Your task to perform on an android device: allow notifications from all sites in the chrome app Image 0: 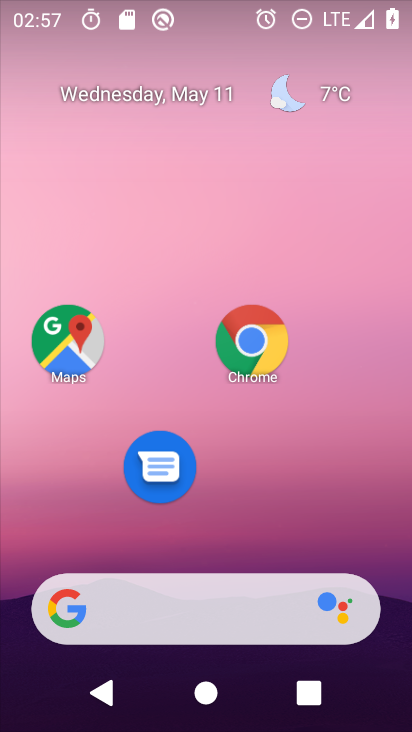
Step 0: drag from (180, 616) to (263, 212)
Your task to perform on an android device: allow notifications from all sites in the chrome app Image 1: 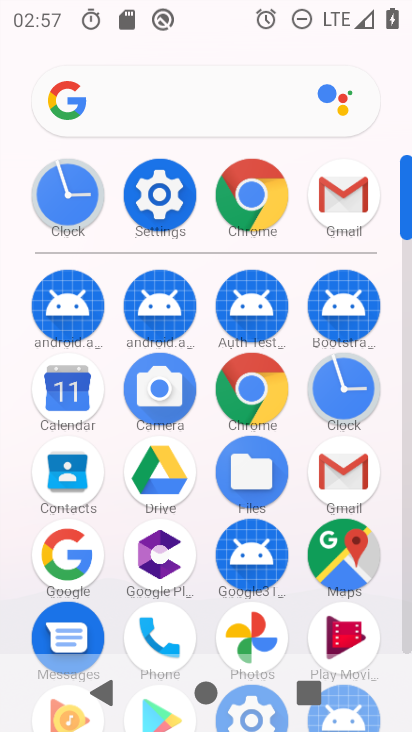
Step 1: click (255, 219)
Your task to perform on an android device: allow notifications from all sites in the chrome app Image 2: 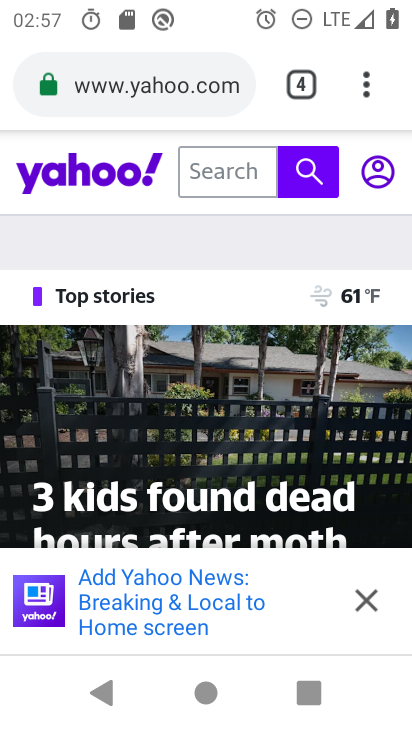
Step 2: drag from (366, 90) to (212, 517)
Your task to perform on an android device: allow notifications from all sites in the chrome app Image 3: 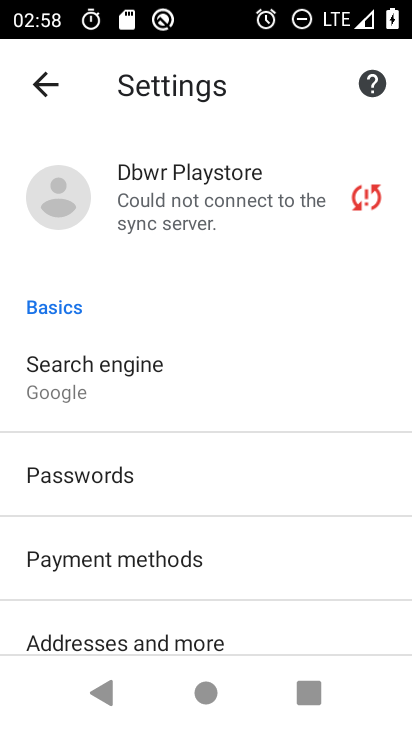
Step 3: drag from (240, 592) to (384, 180)
Your task to perform on an android device: allow notifications from all sites in the chrome app Image 4: 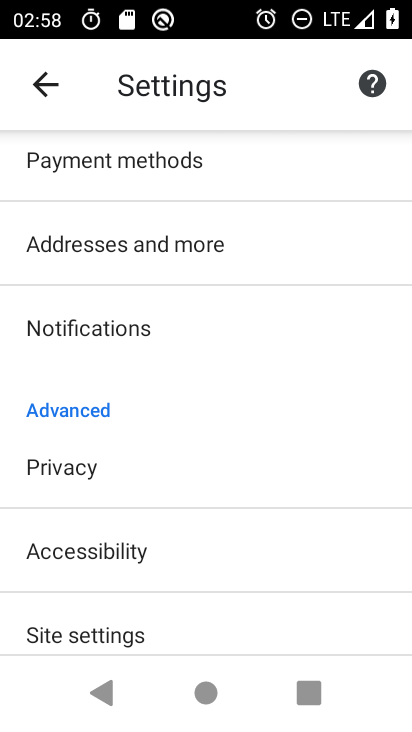
Step 4: click (98, 627)
Your task to perform on an android device: allow notifications from all sites in the chrome app Image 5: 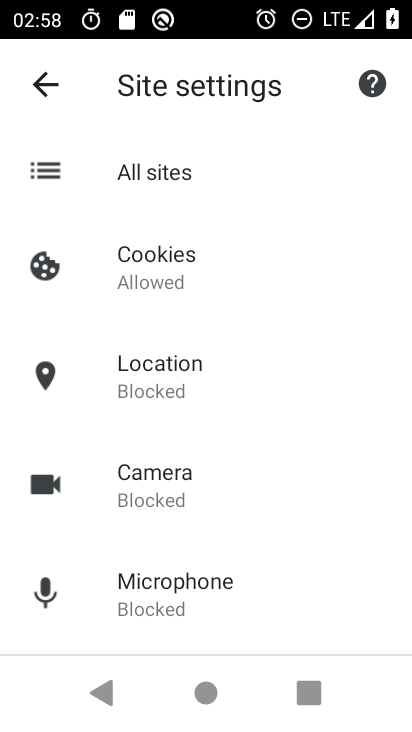
Step 5: drag from (221, 535) to (339, 215)
Your task to perform on an android device: allow notifications from all sites in the chrome app Image 6: 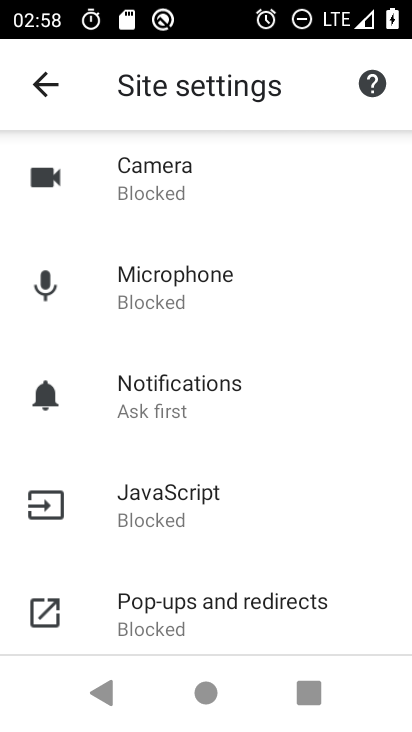
Step 6: click (198, 386)
Your task to perform on an android device: allow notifications from all sites in the chrome app Image 7: 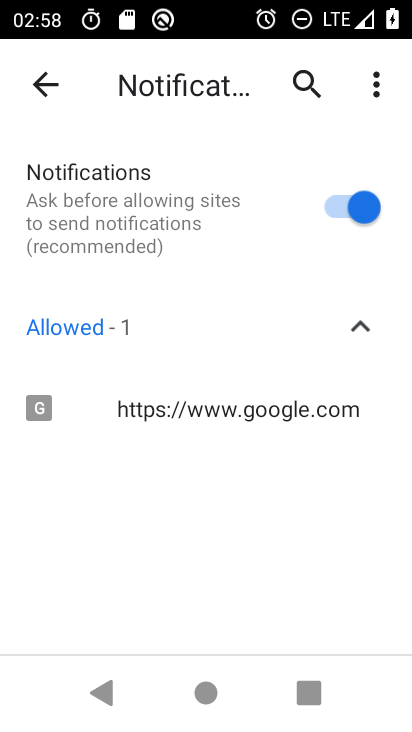
Step 7: task complete